Your task to perform on an android device: turn off data saver in the chrome app Image 0: 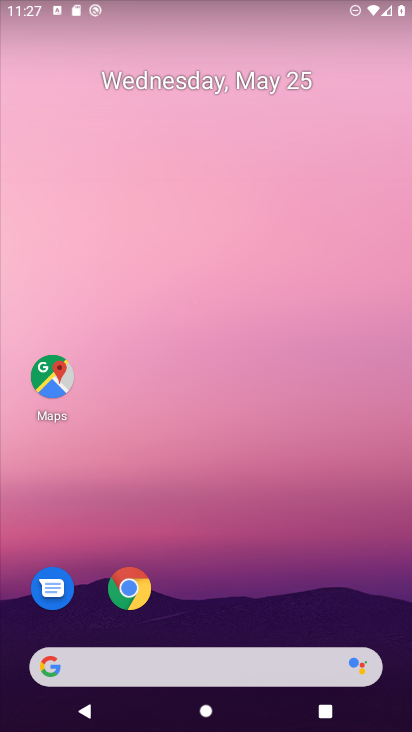
Step 0: press home button
Your task to perform on an android device: turn off data saver in the chrome app Image 1: 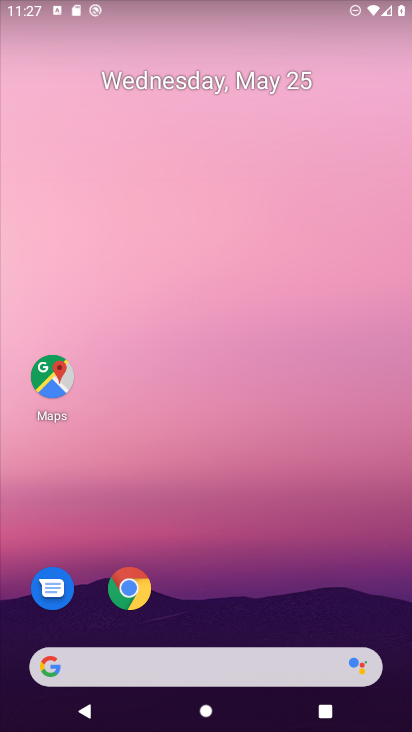
Step 1: drag from (7, 557) to (219, 50)
Your task to perform on an android device: turn off data saver in the chrome app Image 2: 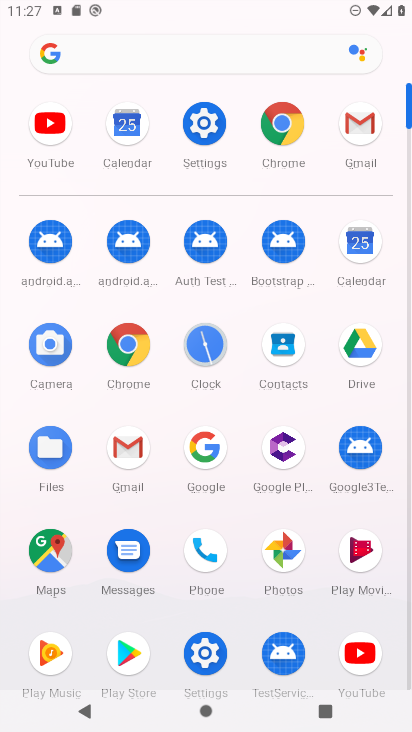
Step 2: click (277, 117)
Your task to perform on an android device: turn off data saver in the chrome app Image 3: 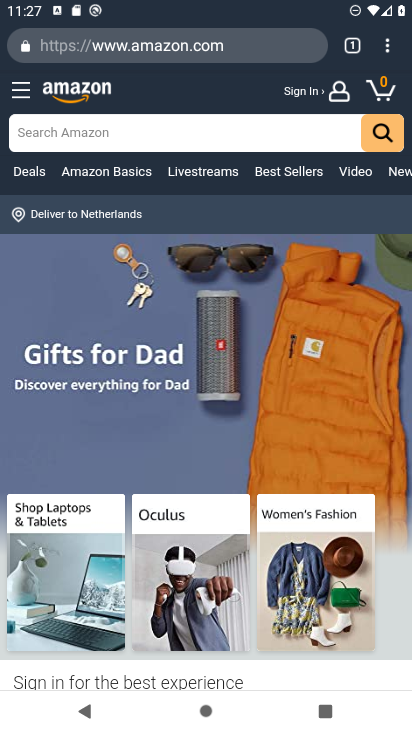
Step 3: click (383, 48)
Your task to perform on an android device: turn off data saver in the chrome app Image 4: 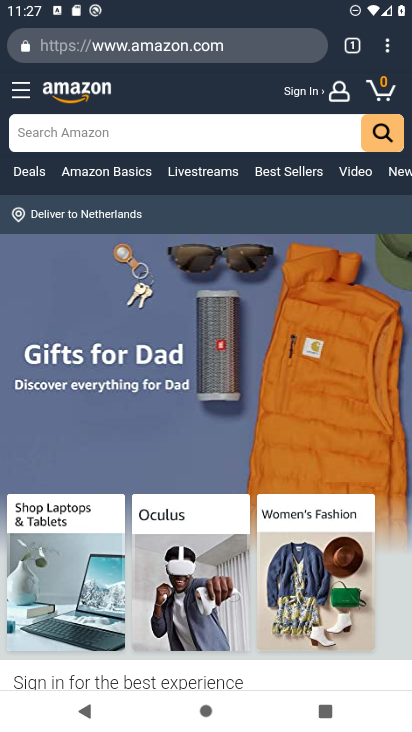
Step 4: click (387, 55)
Your task to perform on an android device: turn off data saver in the chrome app Image 5: 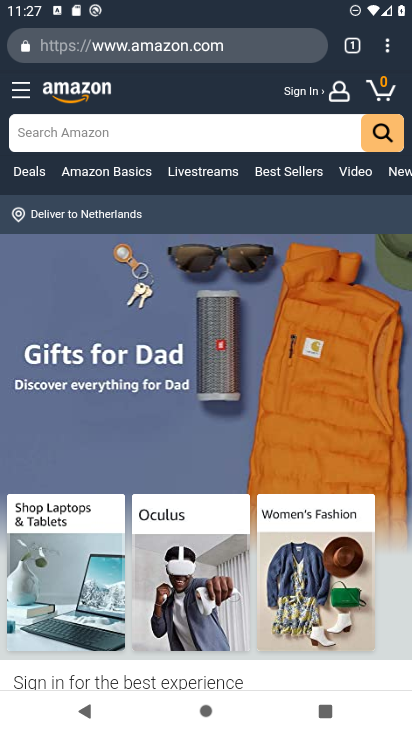
Step 5: click (387, 54)
Your task to perform on an android device: turn off data saver in the chrome app Image 6: 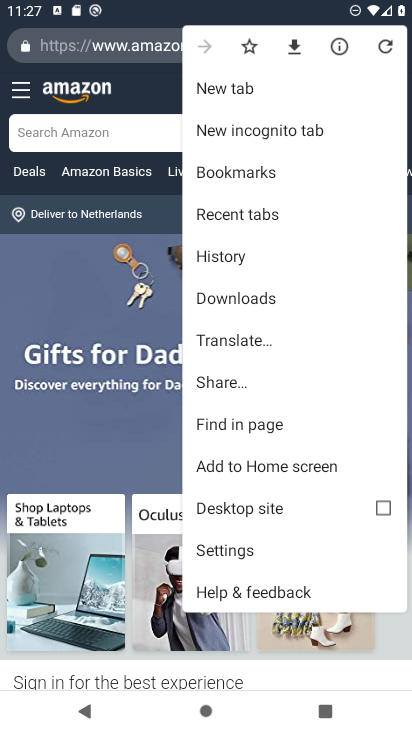
Step 6: click (244, 547)
Your task to perform on an android device: turn off data saver in the chrome app Image 7: 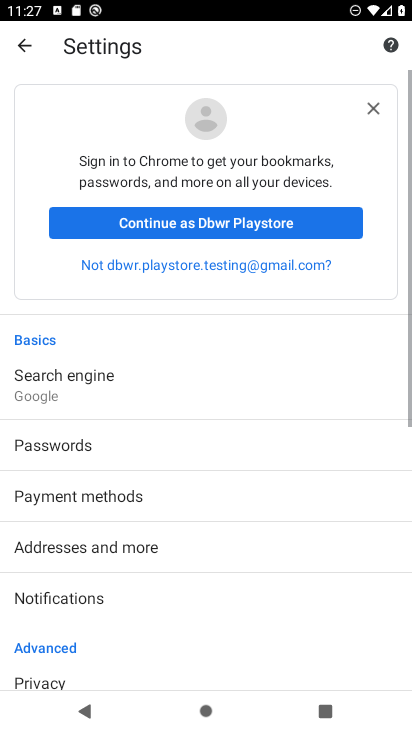
Step 7: drag from (7, 574) to (206, 71)
Your task to perform on an android device: turn off data saver in the chrome app Image 8: 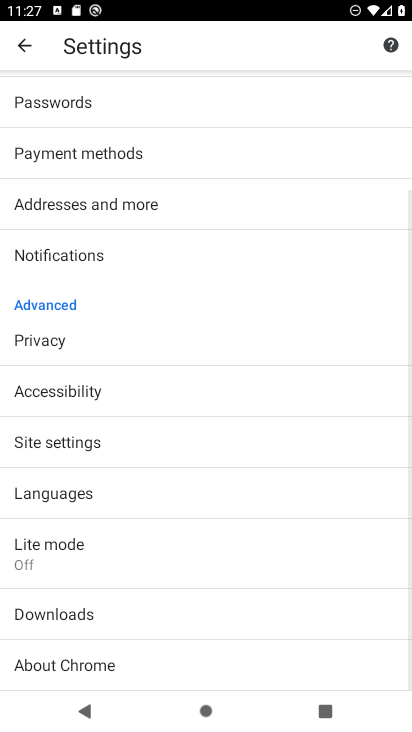
Step 8: click (72, 560)
Your task to perform on an android device: turn off data saver in the chrome app Image 9: 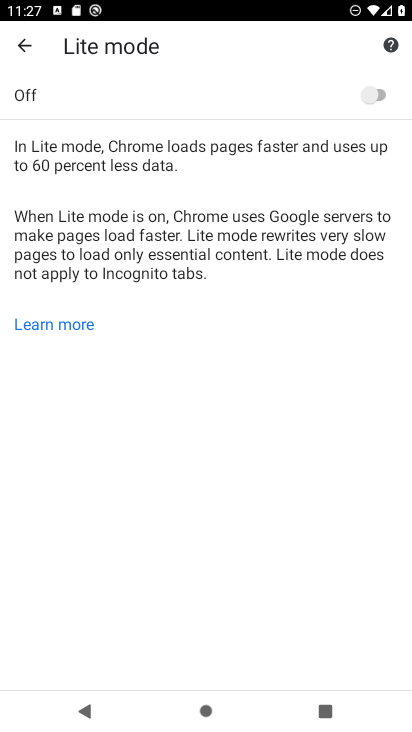
Step 9: task complete